Your task to perform on an android device: Open notification settings Image 0: 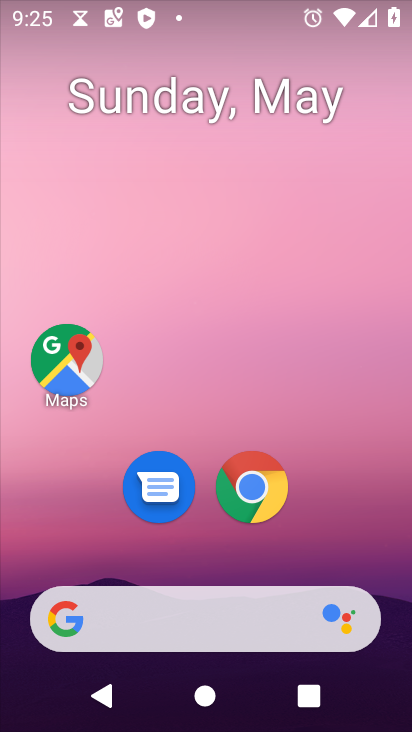
Step 0: drag from (350, 466) to (286, 82)
Your task to perform on an android device: Open notification settings Image 1: 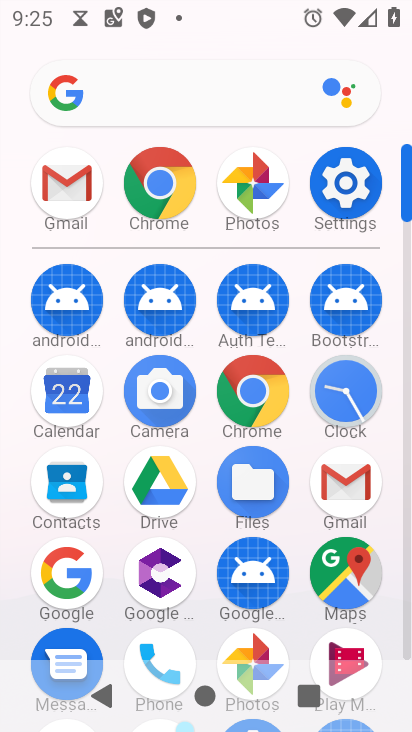
Step 1: click (311, 202)
Your task to perform on an android device: Open notification settings Image 2: 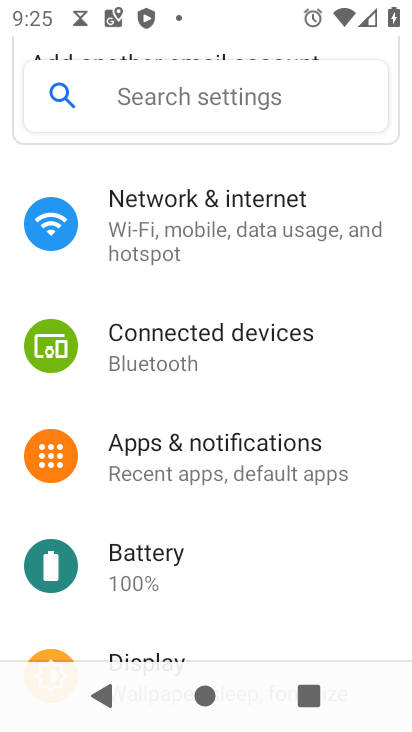
Step 2: click (262, 435)
Your task to perform on an android device: Open notification settings Image 3: 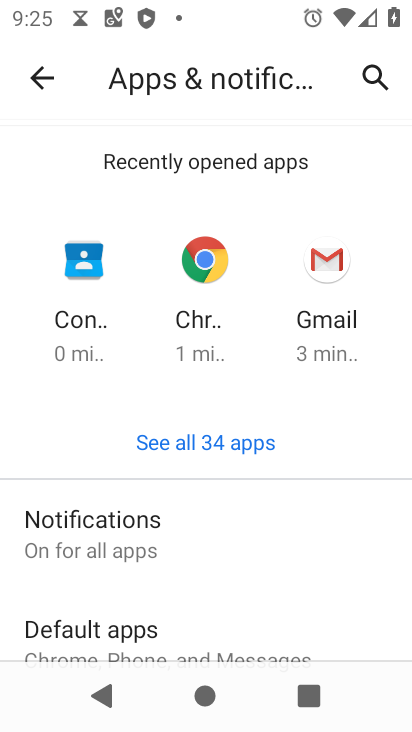
Step 3: drag from (276, 449) to (240, 313)
Your task to perform on an android device: Open notification settings Image 4: 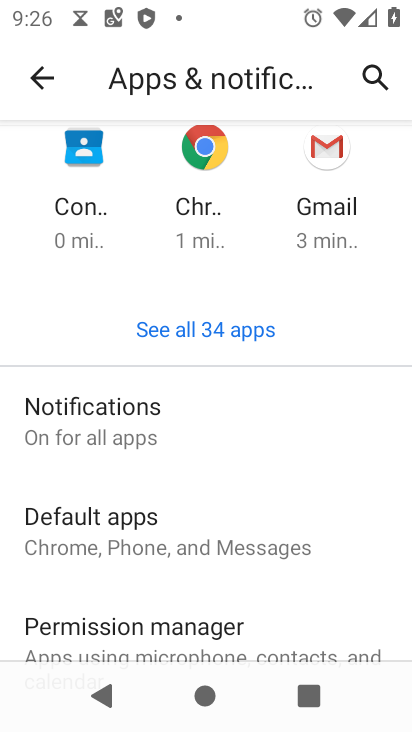
Step 4: click (92, 440)
Your task to perform on an android device: Open notification settings Image 5: 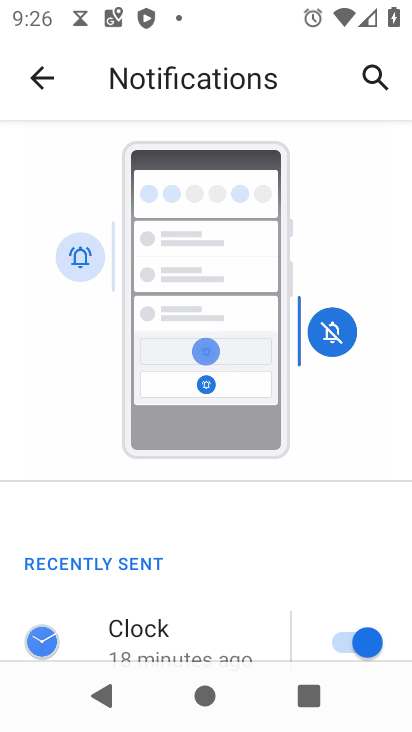
Step 5: task complete